Your task to perform on an android device: Open Google Chrome and click the shortcut for Amazon.com Image 0: 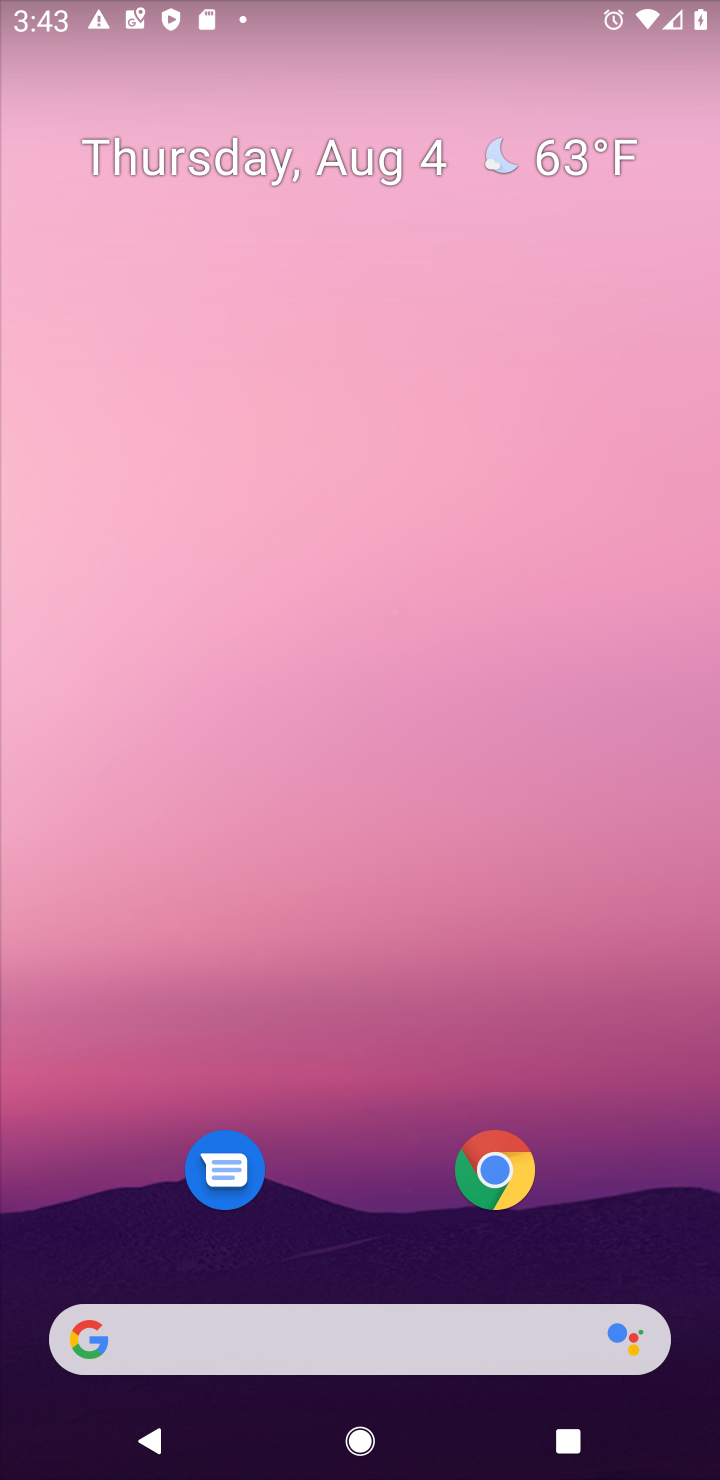
Step 0: click (491, 1178)
Your task to perform on an android device: Open Google Chrome and click the shortcut for Amazon.com Image 1: 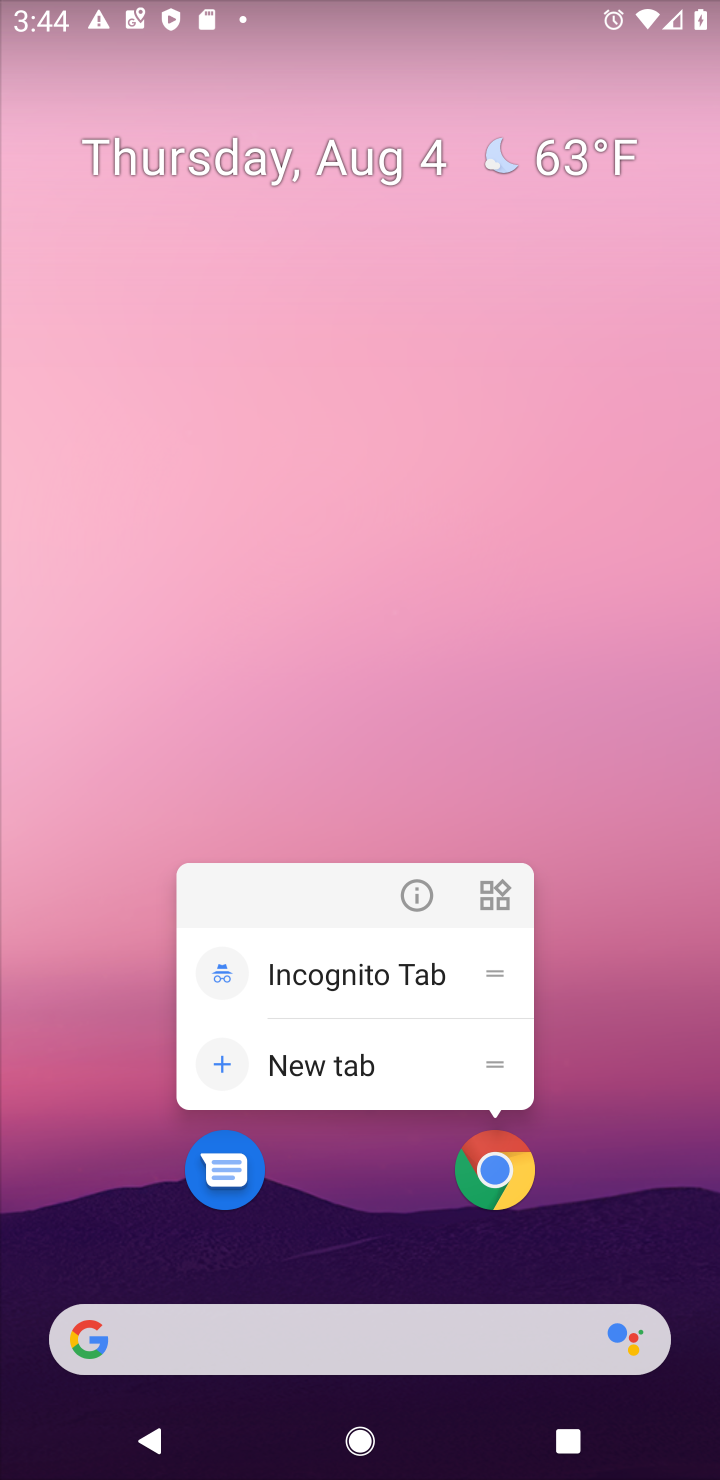
Step 1: click (491, 1174)
Your task to perform on an android device: Open Google Chrome and click the shortcut for Amazon.com Image 2: 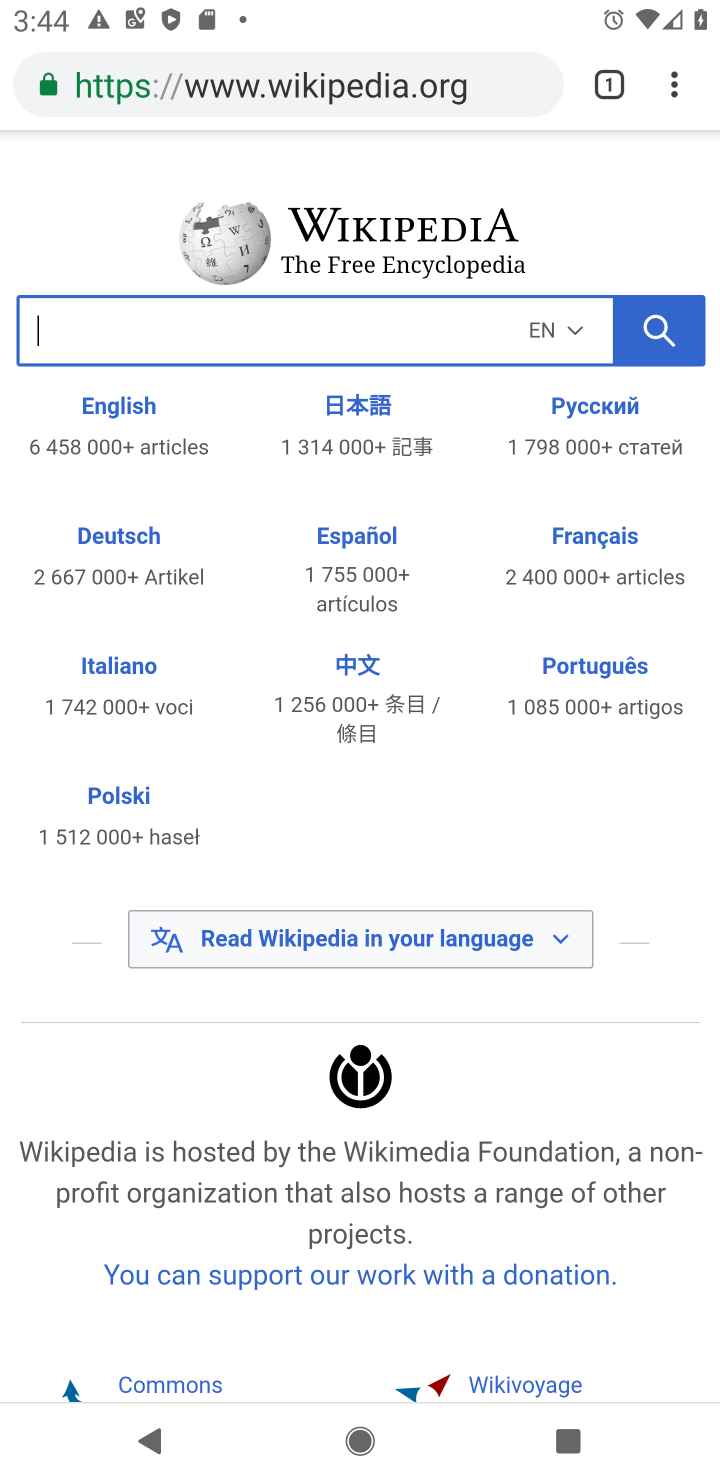
Step 2: click (678, 106)
Your task to perform on an android device: Open Google Chrome and click the shortcut for Amazon.com Image 3: 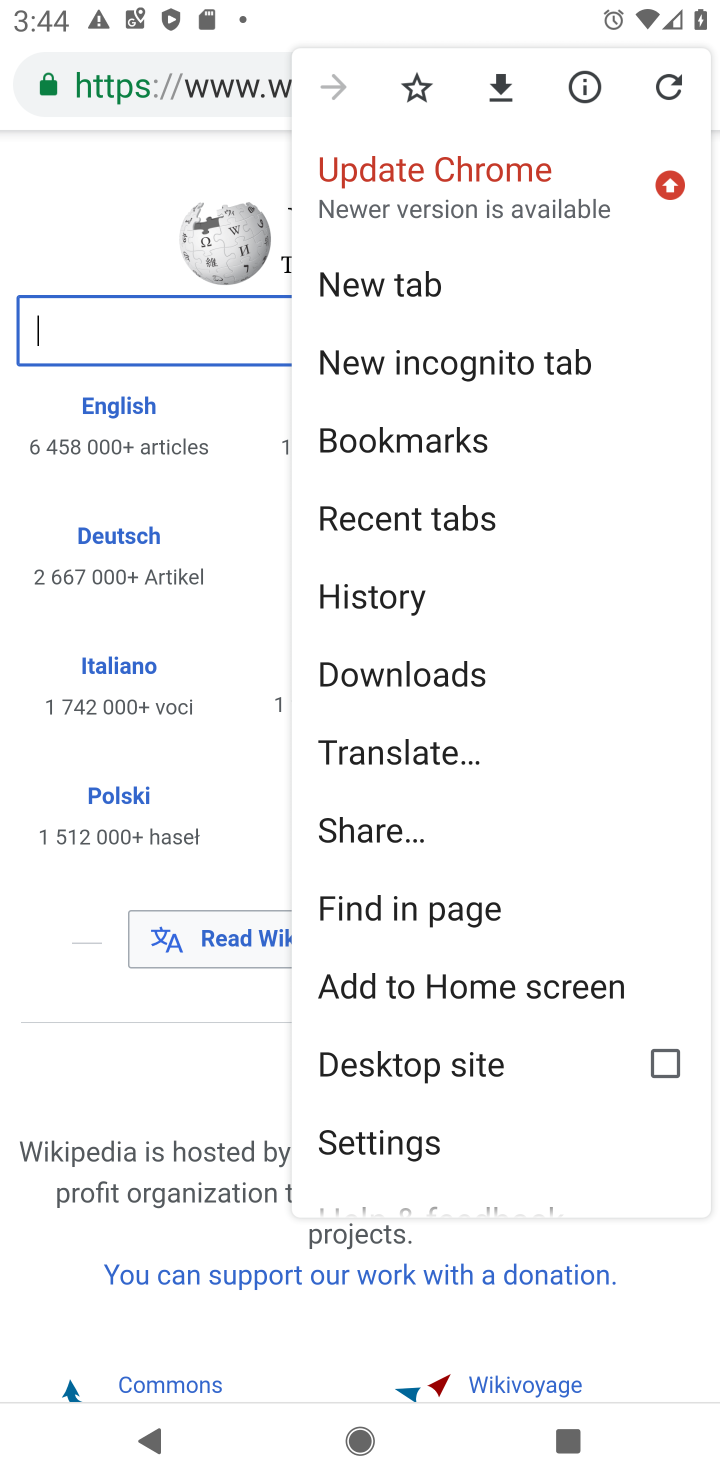
Step 3: click (396, 277)
Your task to perform on an android device: Open Google Chrome and click the shortcut for Amazon.com Image 4: 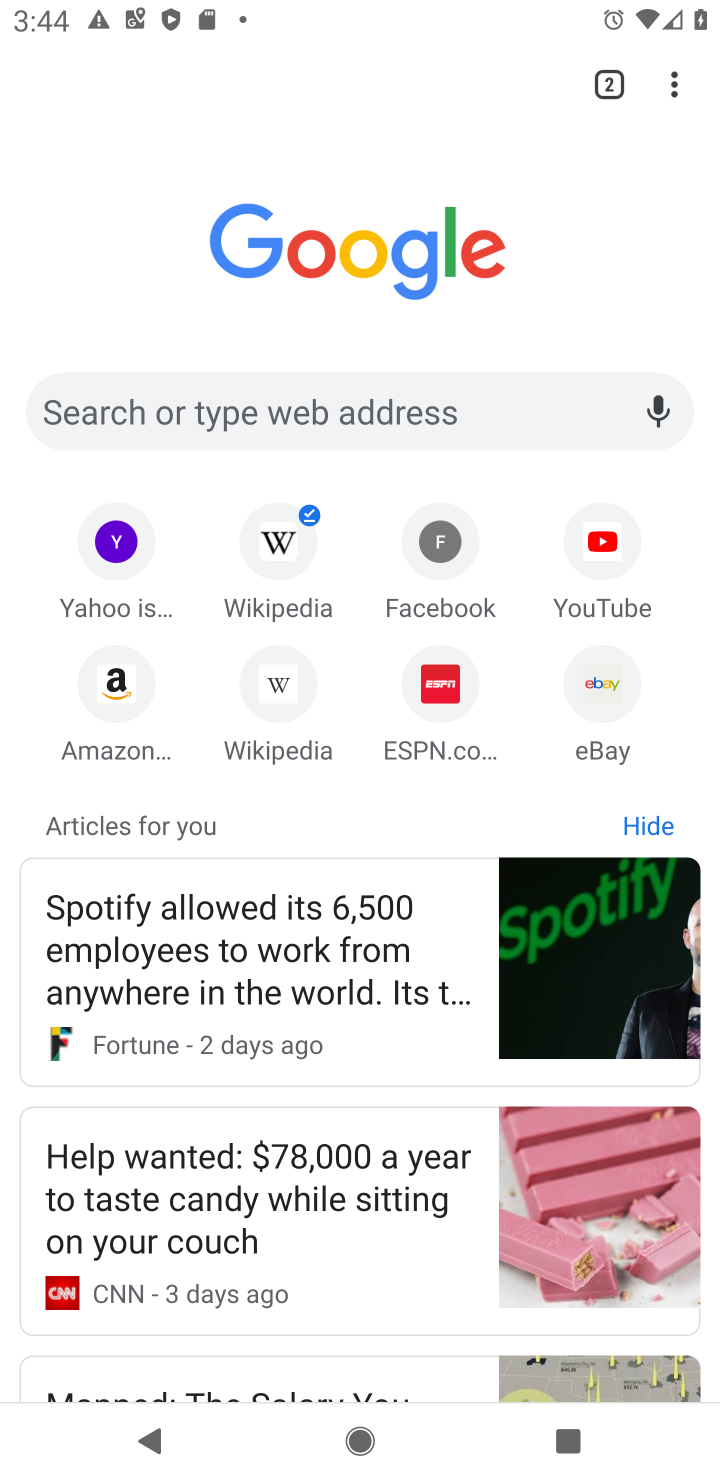
Step 4: click (114, 680)
Your task to perform on an android device: Open Google Chrome and click the shortcut for Amazon.com Image 5: 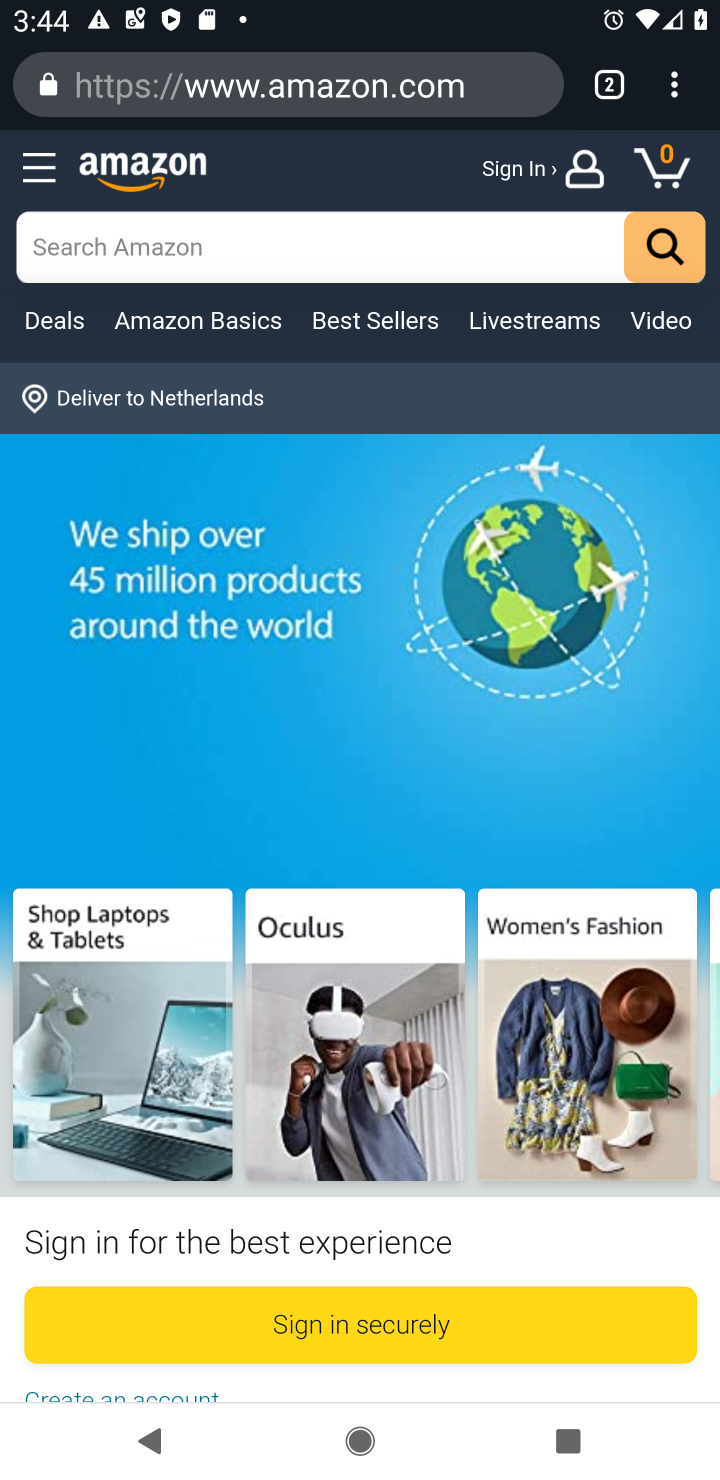
Step 5: task complete